Your task to perform on an android device: turn on airplane mode Image 0: 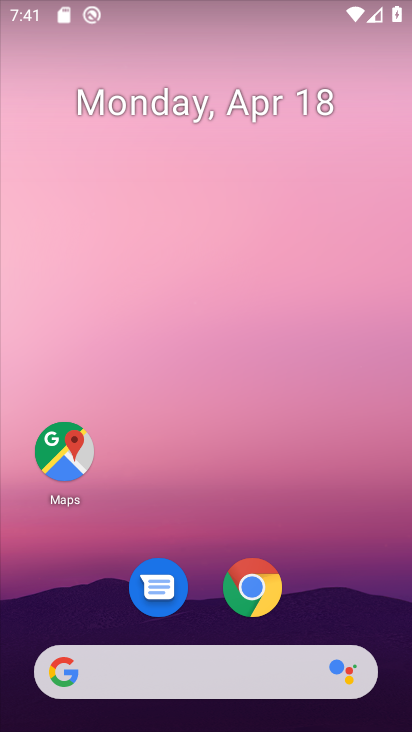
Step 0: drag from (304, 10) to (259, 522)
Your task to perform on an android device: turn on airplane mode Image 1: 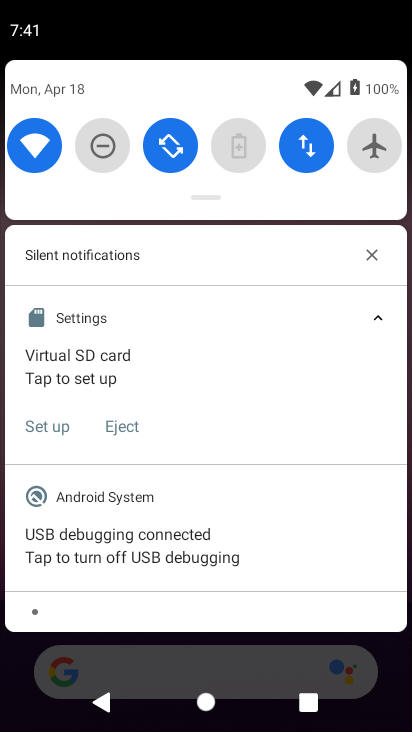
Step 1: click (367, 140)
Your task to perform on an android device: turn on airplane mode Image 2: 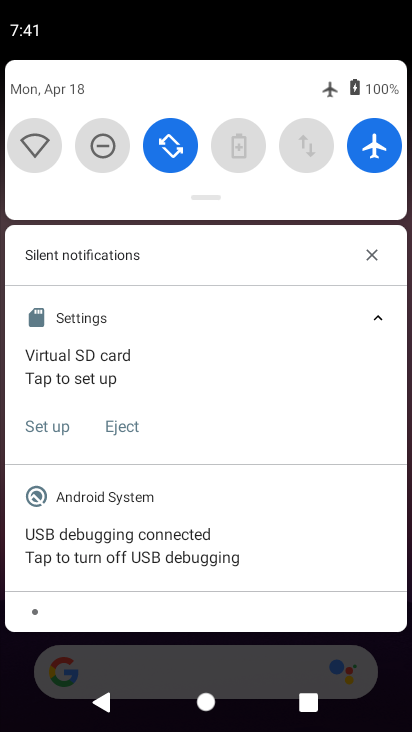
Step 2: task complete